Your task to perform on an android device: Open the calendar app, open the side menu, and click the "Day" option Image 0: 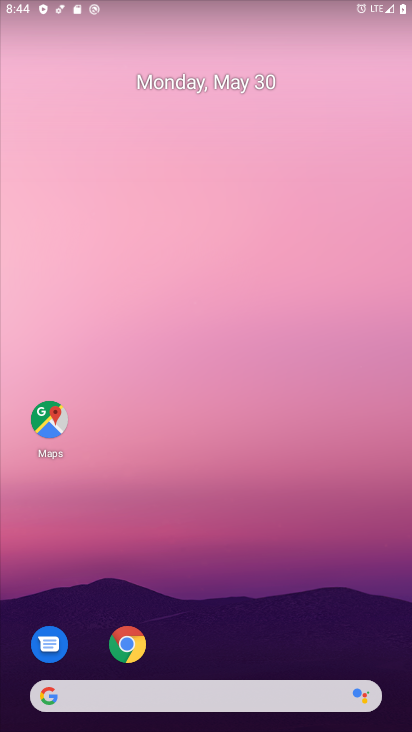
Step 0: drag from (403, 678) to (334, 93)
Your task to perform on an android device: Open the calendar app, open the side menu, and click the "Day" option Image 1: 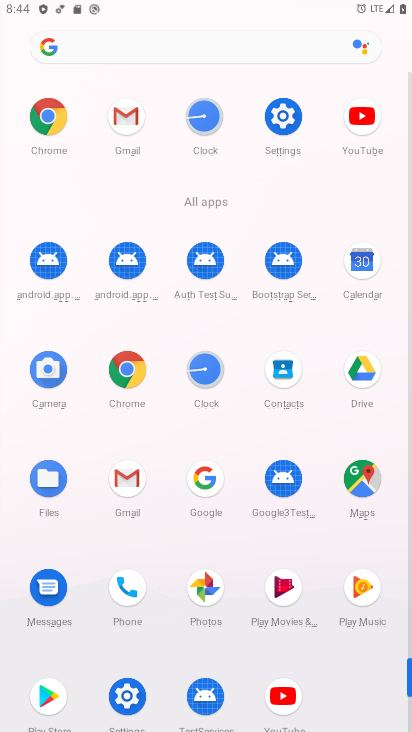
Step 1: click (365, 259)
Your task to perform on an android device: Open the calendar app, open the side menu, and click the "Day" option Image 2: 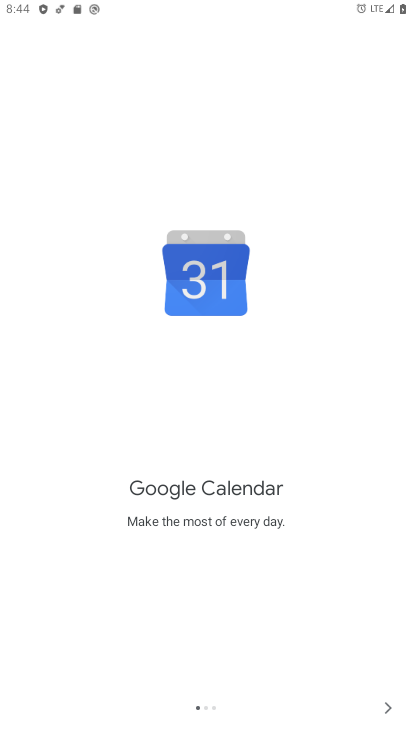
Step 2: click (383, 707)
Your task to perform on an android device: Open the calendar app, open the side menu, and click the "Day" option Image 3: 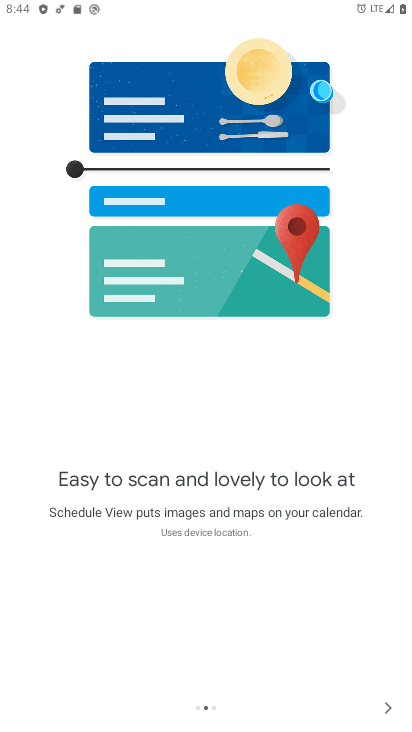
Step 3: click (383, 707)
Your task to perform on an android device: Open the calendar app, open the side menu, and click the "Day" option Image 4: 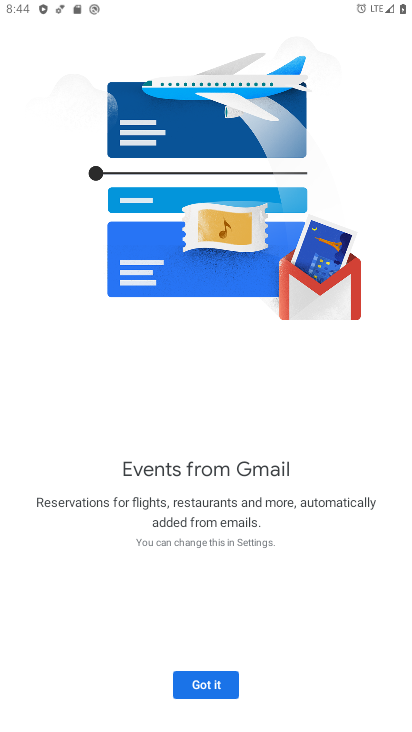
Step 4: click (201, 680)
Your task to perform on an android device: Open the calendar app, open the side menu, and click the "Day" option Image 5: 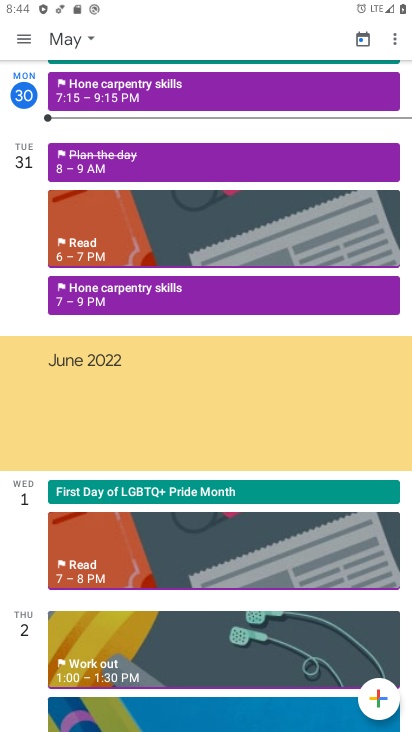
Step 5: click (20, 34)
Your task to perform on an android device: Open the calendar app, open the side menu, and click the "Day" option Image 6: 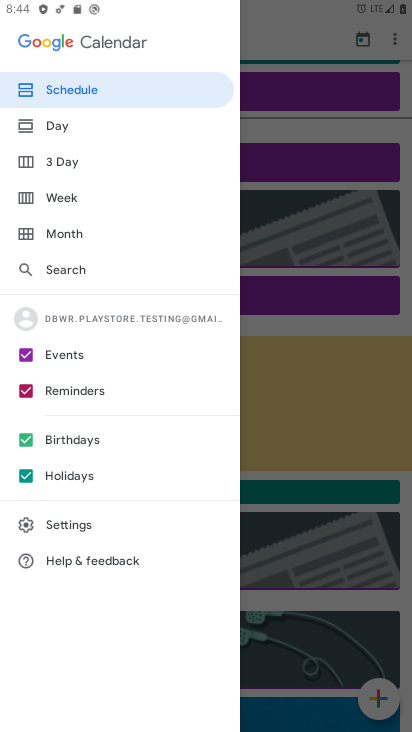
Step 6: click (61, 122)
Your task to perform on an android device: Open the calendar app, open the side menu, and click the "Day" option Image 7: 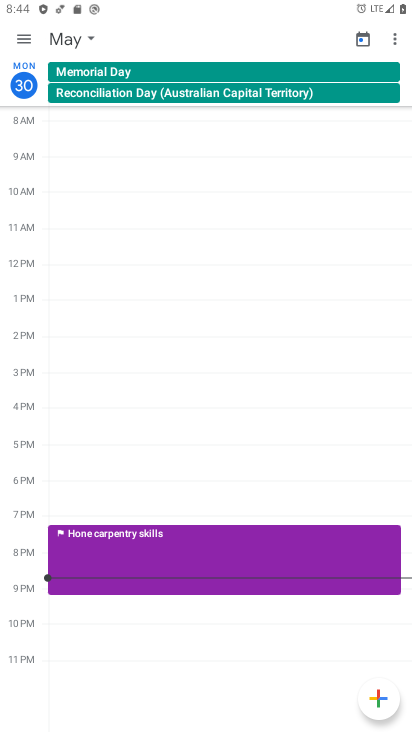
Step 7: click (163, 461)
Your task to perform on an android device: Open the calendar app, open the side menu, and click the "Day" option Image 8: 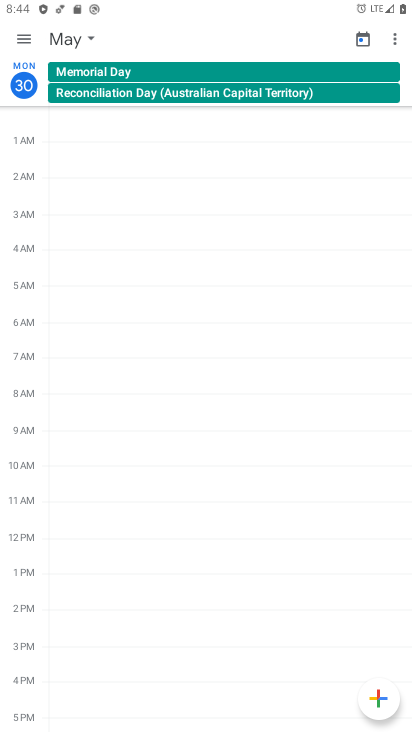
Step 8: task complete